Your task to perform on an android device: turn on notifications settings in the gmail app Image 0: 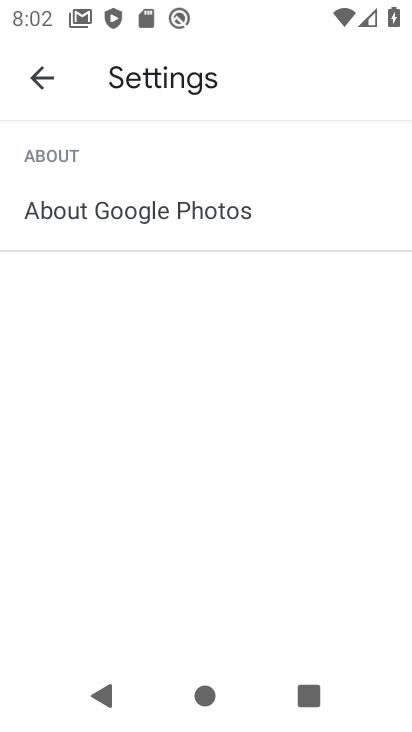
Step 0: press home button
Your task to perform on an android device: turn on notifications settings in the gmail app Image 1: 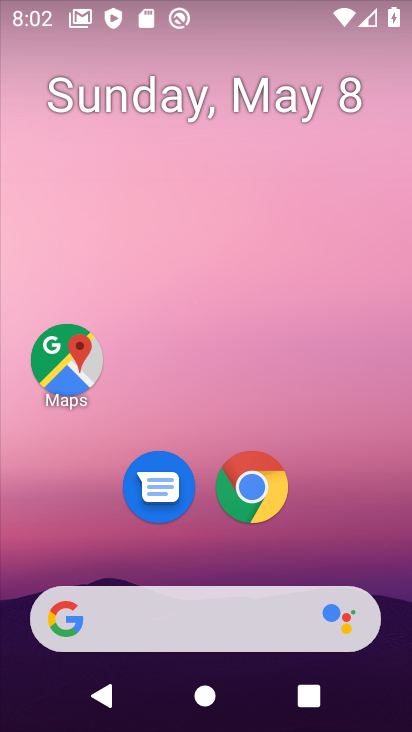
Step 1: drag from (334, 546) to (203, 60)
Your task to perform on an android device: turn on notifications settings in the gmail app Image 2: 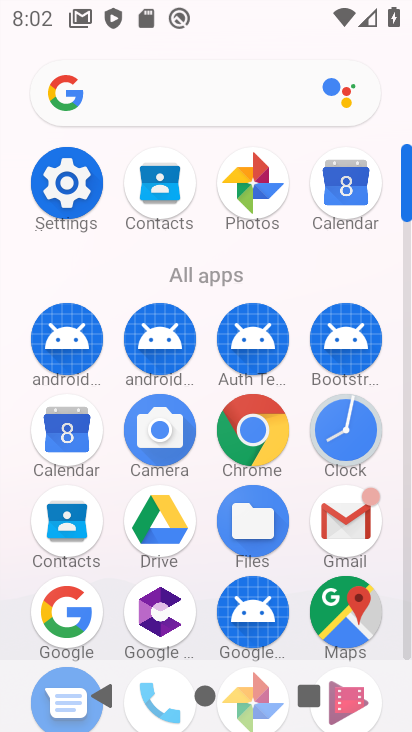
Step 2: click (335, 516)
Your task to perform on an android device: turn on notifications settings in the gmail app Image 3: 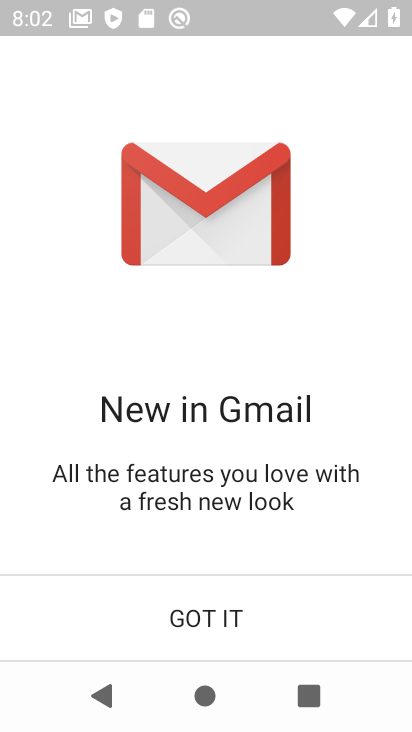
Step 3: click (226, 617)
Your task to perform on an android device: turn on notifications settings in the gmail app Image 4: 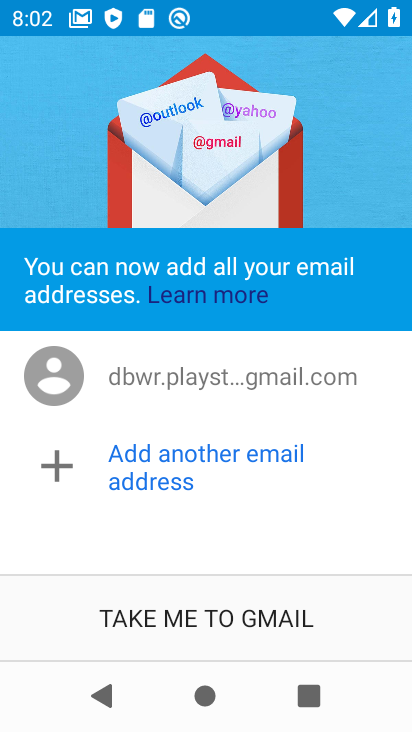
Step 4: click (226, 611)
Your task to perform on an android device: turn on notifications settings in the gmail app Image 5: 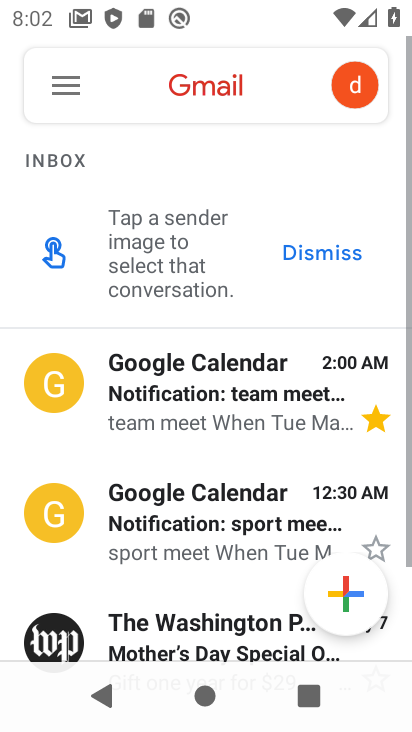
Step 5: click (80, 71)
Your task to perform on an android device: turn on notifications settings in the gmail app Image 6: 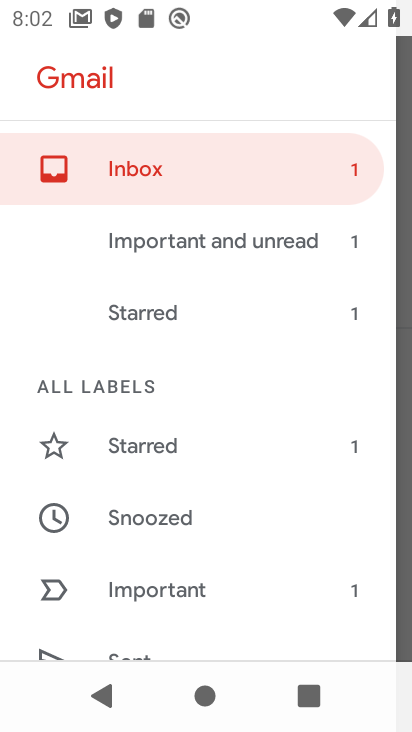
Step 6: drag from (159, 585) to (214, 25)
Your task to perform on an android device: turn on notifications settings in the gmail app Image 7: 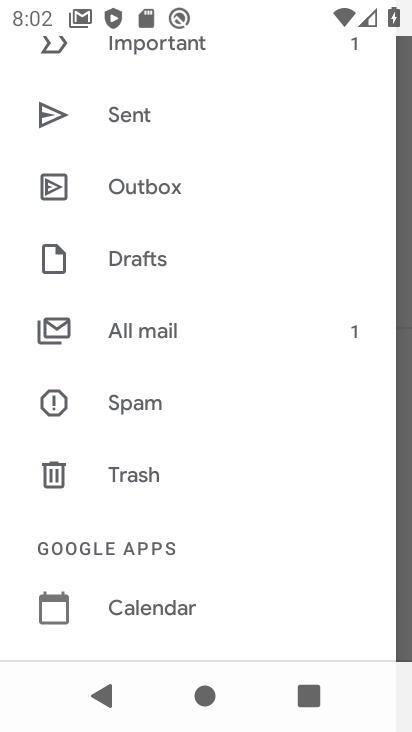
Step 7: drag from (174, 635) to (237, 356)
Your task to perform on an android device: turn on notifications settings in the gmail app Image 8: 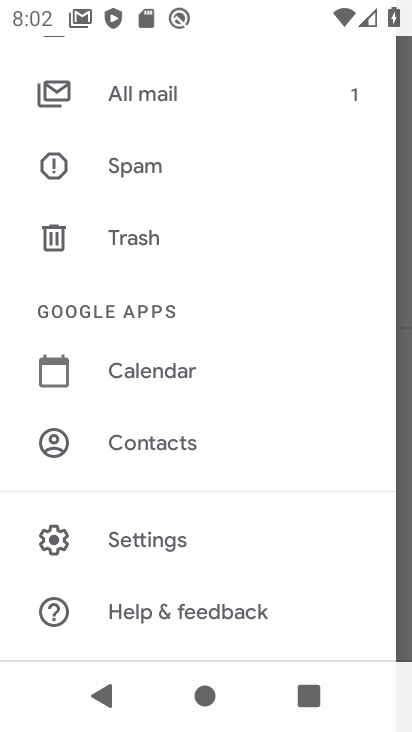
Step 8: click (207, 537)
Your task to perform on an android device: turn on notifications settings in the gmail app Image 9: 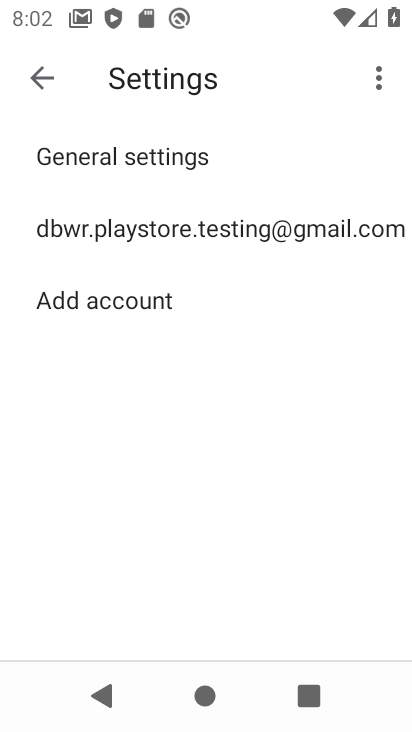
Step 9: click (211, 162)
Your task to perform on an android device: turn on notifications settings in the gmail app Image 10: 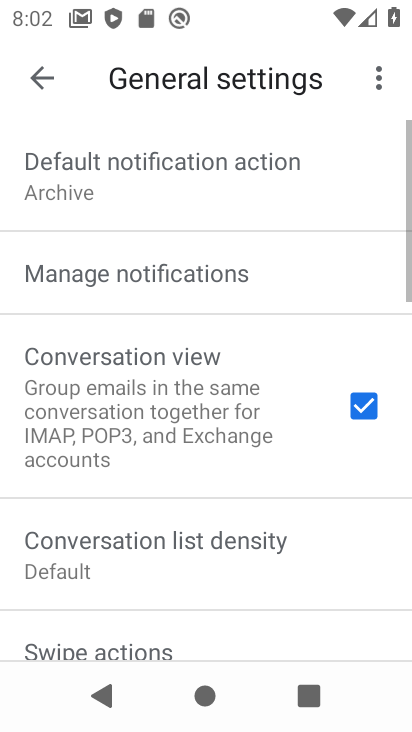
Step 10: task complete